Your task to perform on an android device: Open my contact list Image 0: 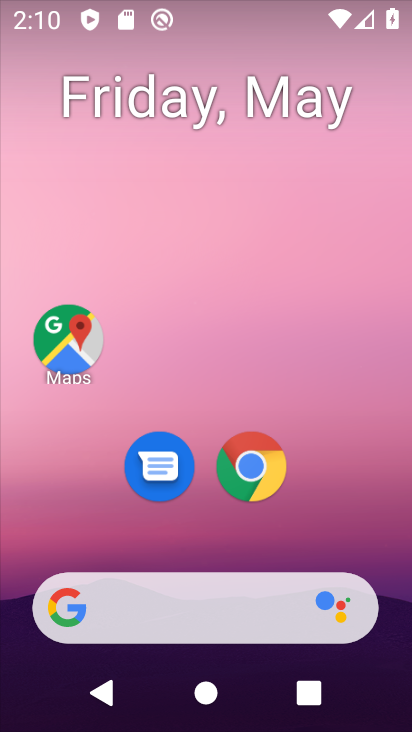
Step 0: drag from (411, 546) to (332, 0)
Your task to perform on an android device: Open my contact list Image 1: 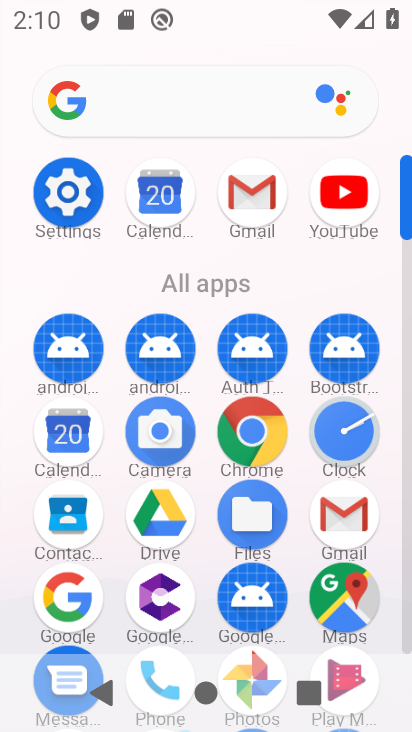
Step 1: click (65, 543)
Your task to perform on an android device: Open my contact list Image 2: 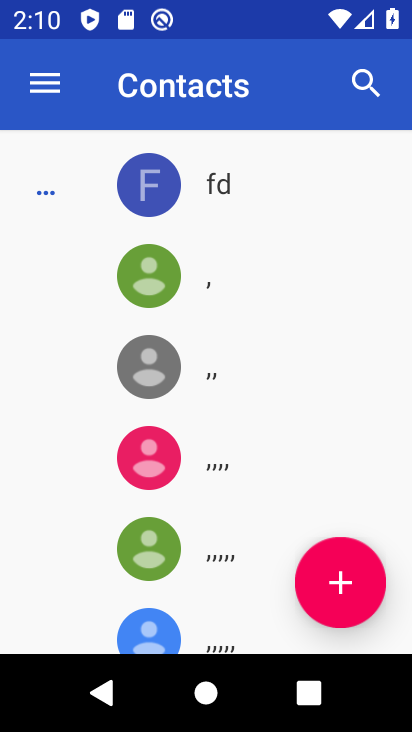
Step 2: task complete